Your task to perform on an android device: Open sound settings Image 0: 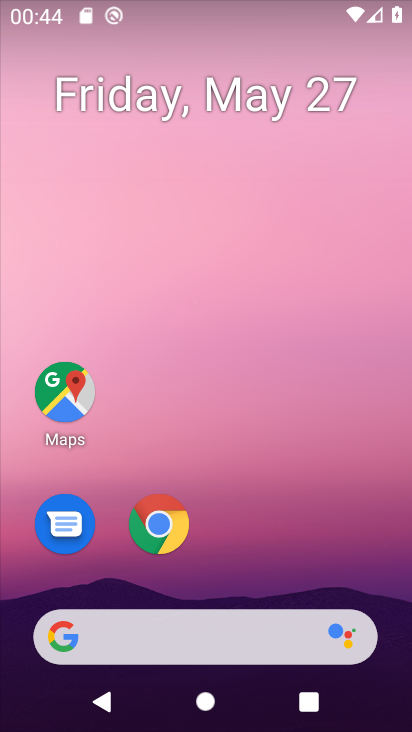
Step 0: drag from (275, 468) to (272, 62)
Your task to perform on an android device: Open sound settings Image 1: 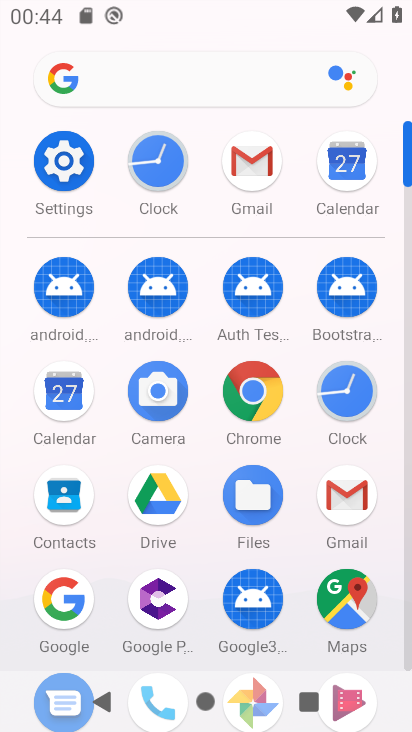
Step 1: click (59, 161)
Your task to perform on an android device: Open sound settings Image 2: 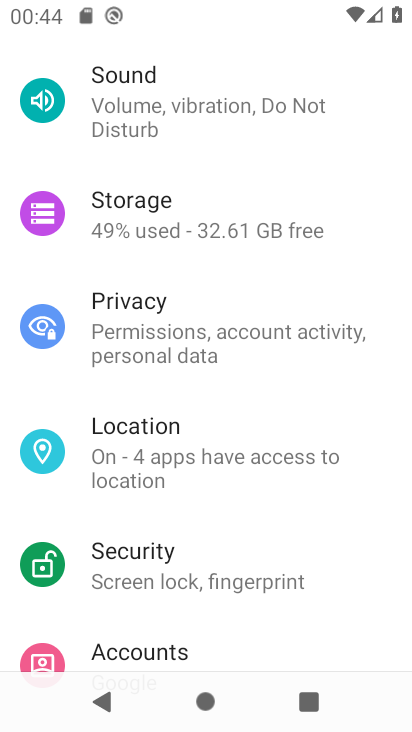
Step 2: click (206, 108)
Your task to perform on an android device: Open sound settings Image 3: 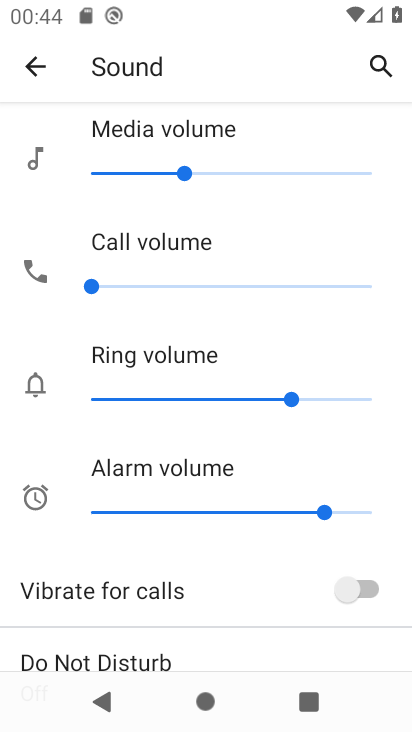
Step 3: task complete